Your task to perform on an android device: Open Google Image 0: 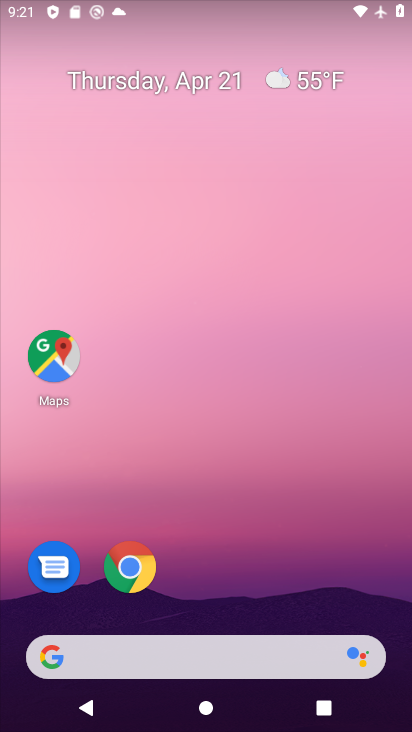
Step 0: click (126, 563)
Your task to perform on an android device: Open Google Image 1: 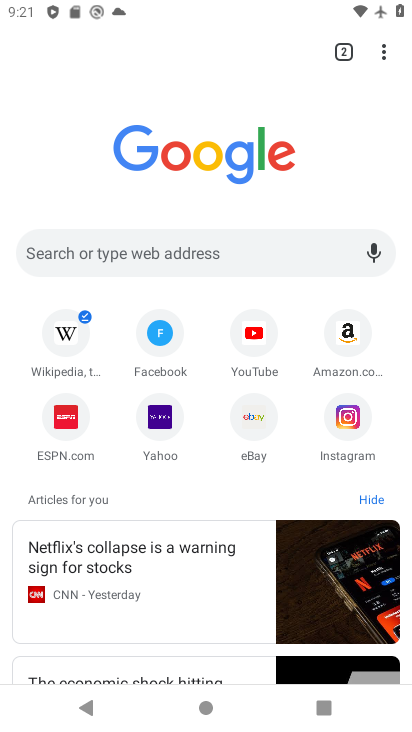
Step 1: task complete